Your task to perform on an android device: turn on the 12-hour format for clock Image 0: 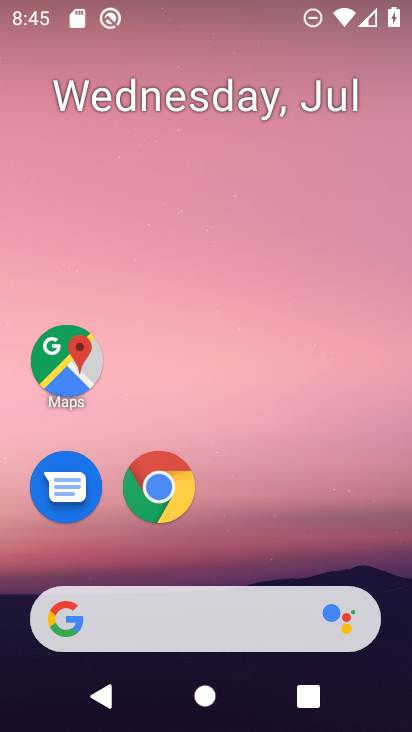
Step 0: drag from (341, 529) to (390, 146)
Your task to perform on an android device: turn on the 12-hour format for clock Image 1: 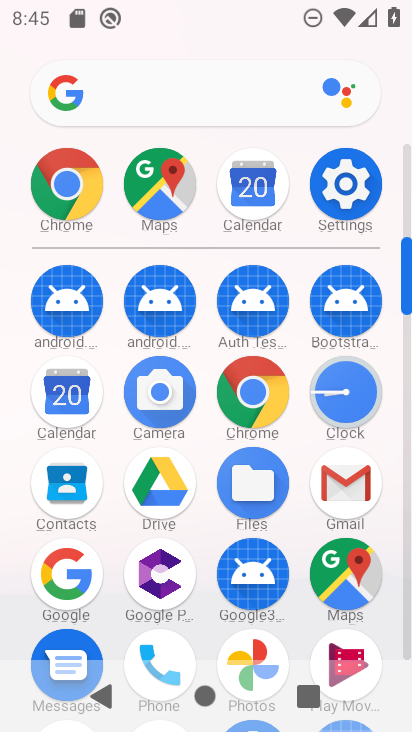
Step 1: click (353, 383)
Your task to perform on an android device: turn on the 12-hour format for clock Image 2: 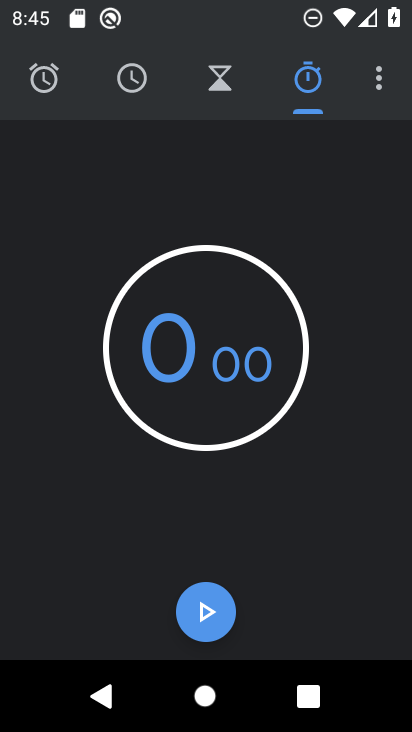
Step 2: click (379, 89)
Your task to perform on an android device: turn on the 12-hour format for clock Image 3: 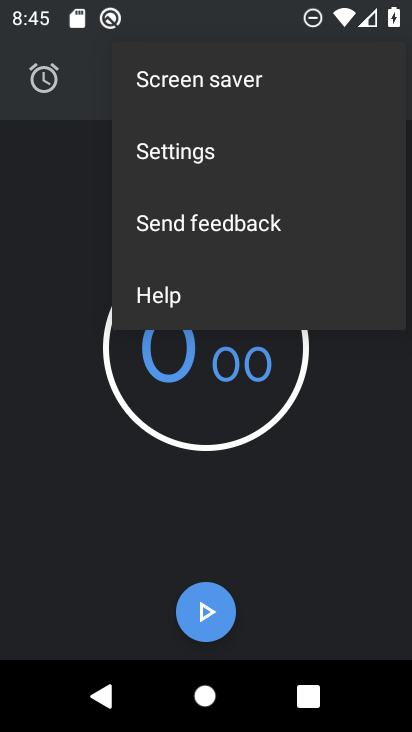
Step 3: click (262, 152)
Your task to perform on an android device: turn on the 12-hour format for clock Image 4: 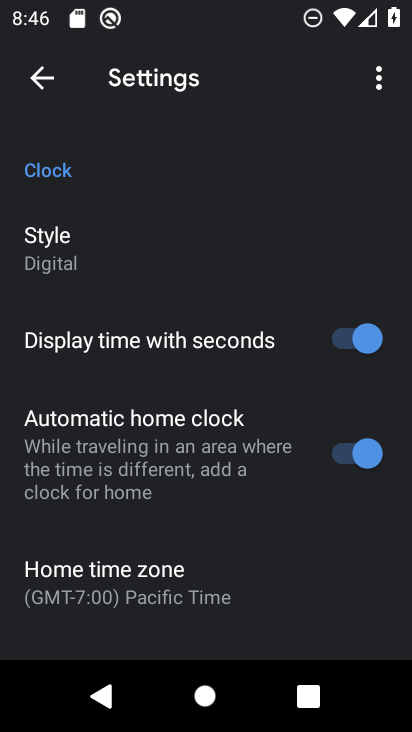
Step 4: drag from (292, 362) to (308, 276)
Your task to perform on an android device: turn on the 12-hour format for clock Image 5: 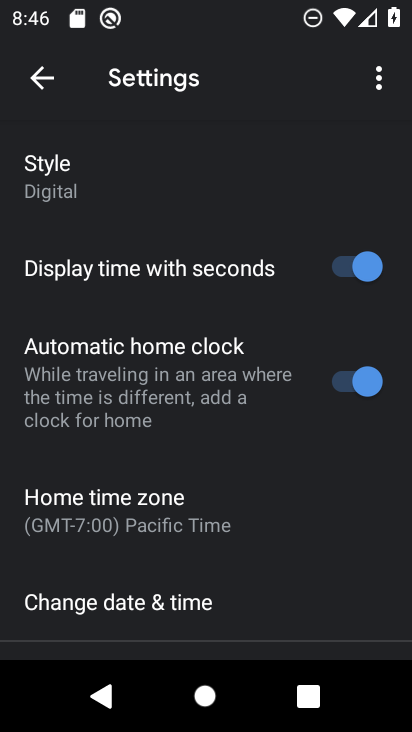
Step 5: drag from (300, 359) to (287, 265)
Your task to perform on an android device: turn on the 12-hour format for clock Image 6: 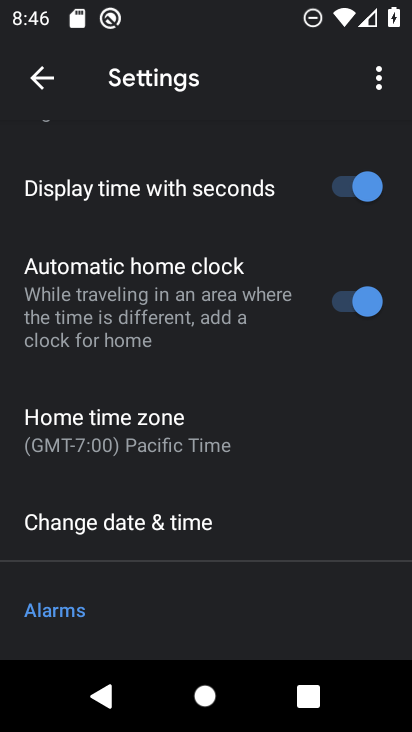
Step 6: drag from (285, 379) to (285, 310)
Your task to perform on an android device: turn on the 12-hour format for clock Image 7: 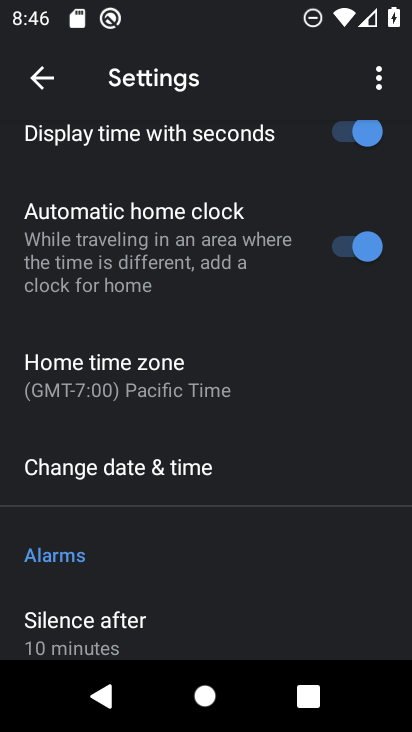
Step 7: drag from (280, 388) to (286, 299)
Your task to perform on an android device: turn on the 12-hour format for clock Image 8: 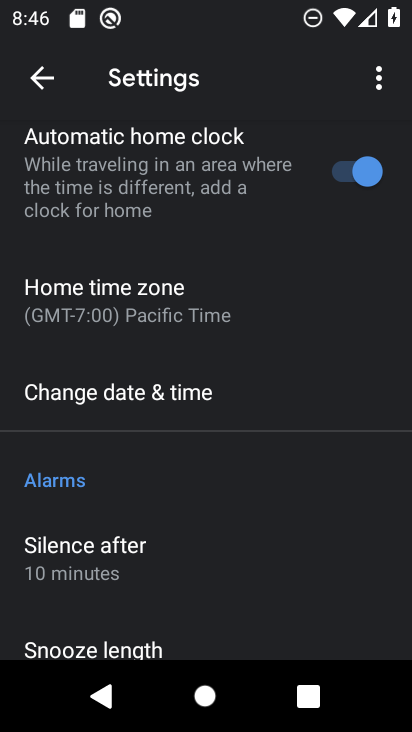
Step 8: drag from (280, 426) to (293, 278)
Your task to perform on an android device: turn on the 12-hour format for clock Image 9: 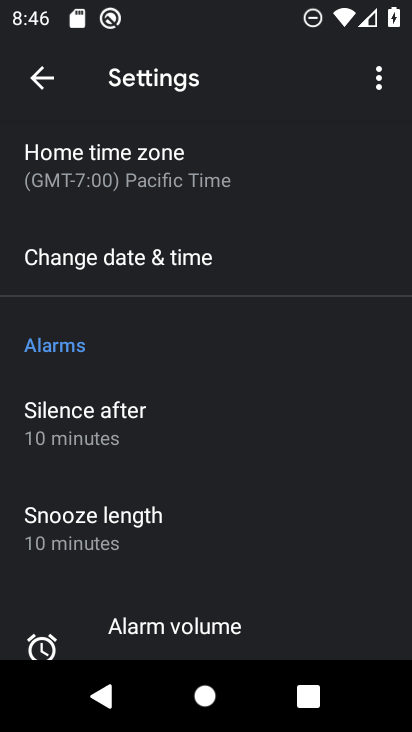
Step 9: click (241, 278)
Your task to perform on an android device: turn on the 12-hour format for clock Image 10: 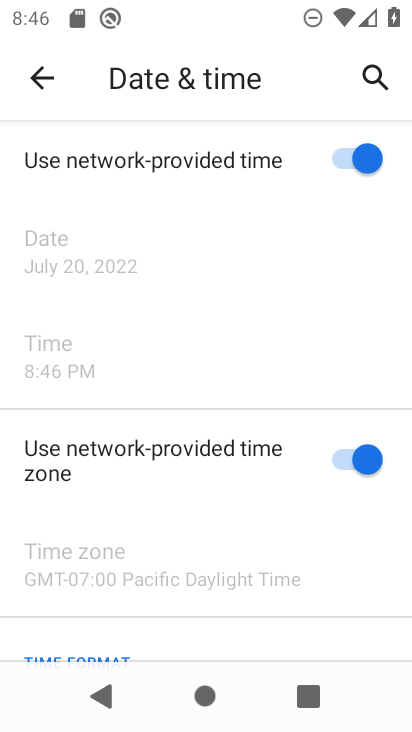
Step 10: task complete